Your task to perform on an android device: Go to Google Image 0: 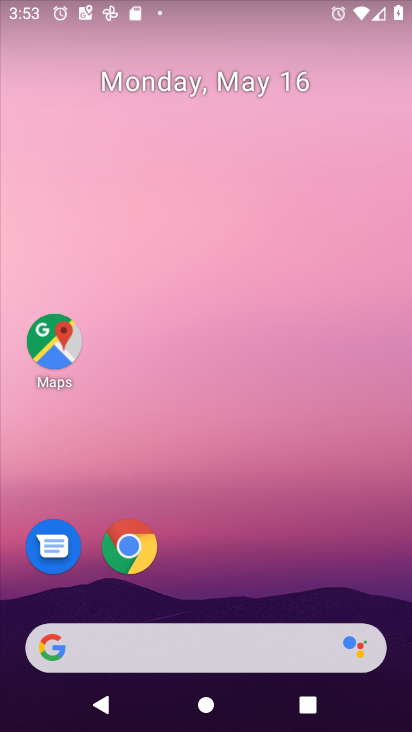
Step 0: drag from (389, 588) to (385, 101)
Your task to perform on an android device: Go to Google Image 1: 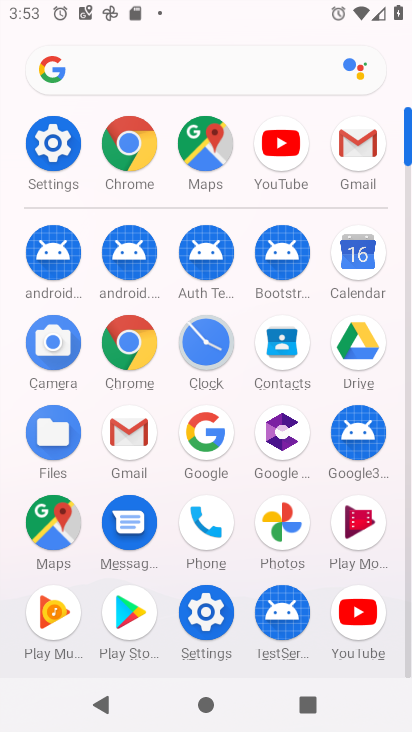
Step 1: click (189, 449)
Your task to perform on an android device: Go to Google Image 2: 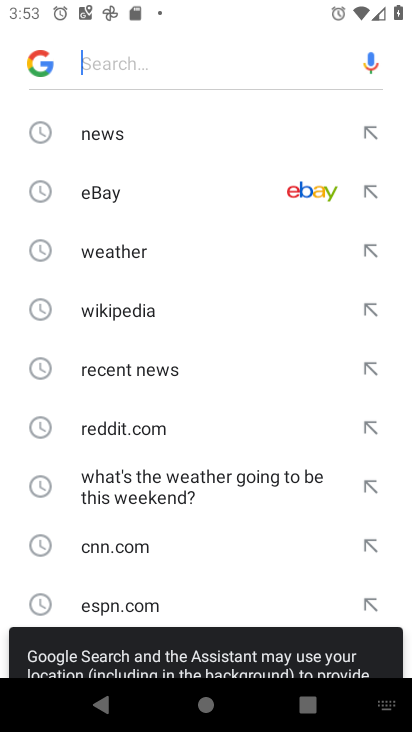
Step 2: task complete